Your task to perform on an android device: Go to Yahoo.com Image 0: 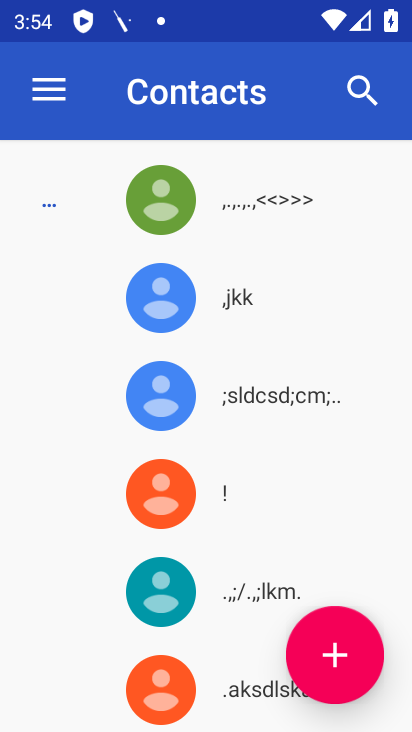
Step 0: press back button
Your task to perform on an android device: Go to Yahoo.com Image 1: 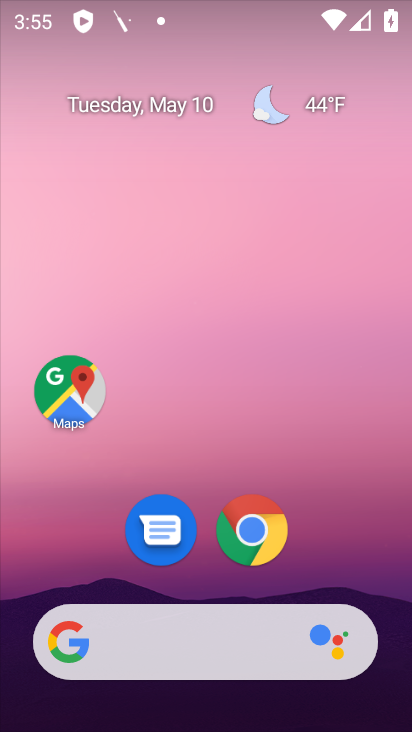
Step 1: click (262, 526)
Your task to perform on an android device: Go to Yahoo.com Image 2: 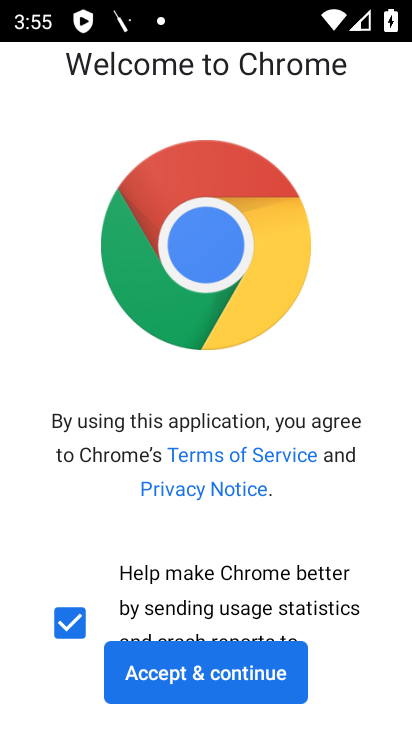
Step 2: click (253, 689)
Your task to perform on an android device: Go to Yahoo.com Image 3: 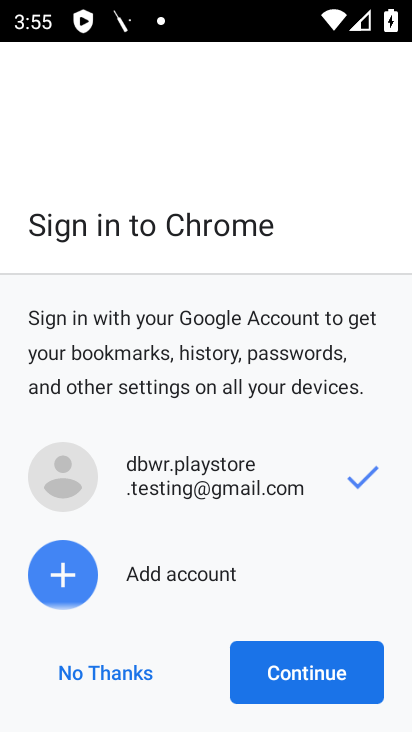
Step 3: click (336, 700)
Your task to perform on an android device: Go to Yahoo.com Image 4: 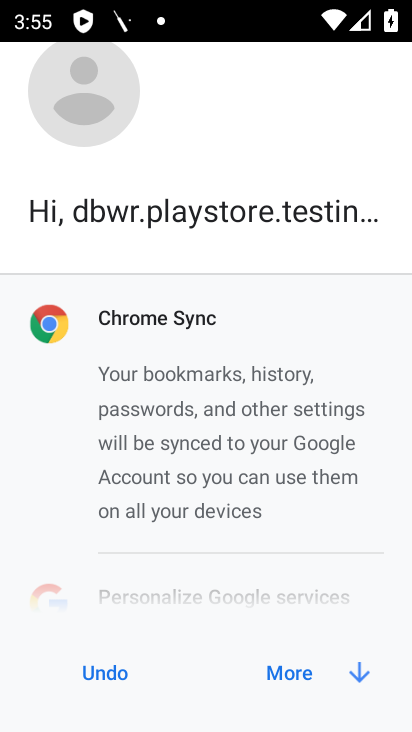
Step 4: click (331, 670)
Your task to perform on an android device: Go to Yahoo.com Image 5: 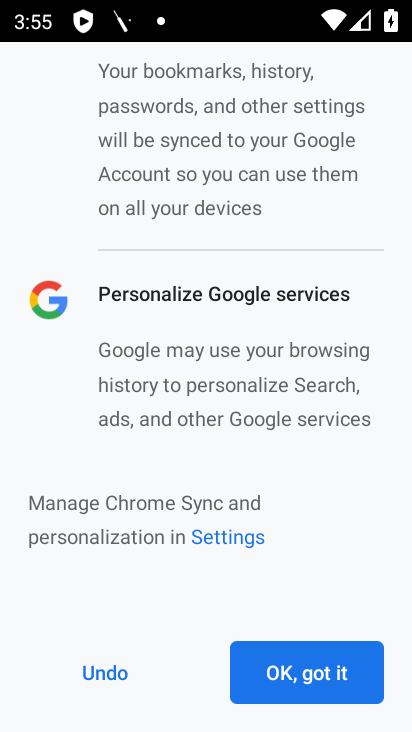
Step 5: click (328, 661)
Your task to perform on an android device: Go to Yahoo.com Image 6: 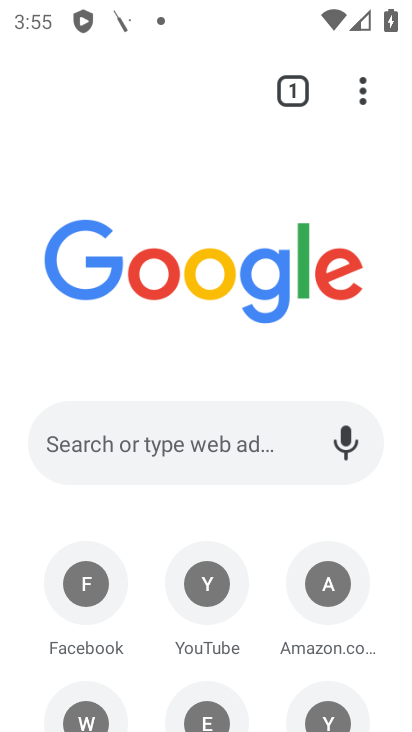
Step 6: drag from (199, 666) to (277, 252)
Your task to perform on an android device: Go to Yahoo.com Image 7: 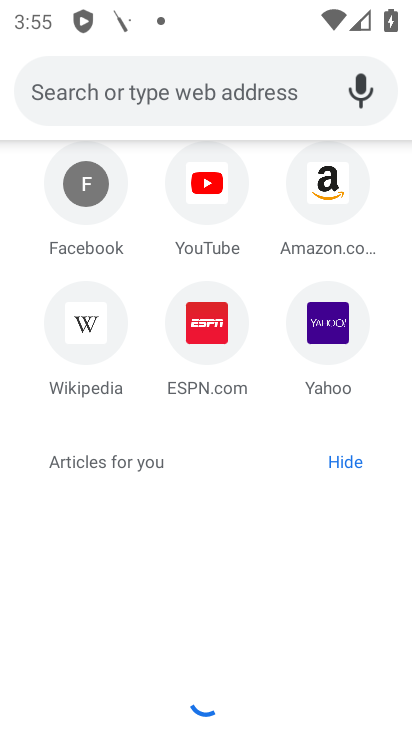
Step 7: click (320, 318)
Your task to perform on an android device: Go to Yahoo.com Image 8: 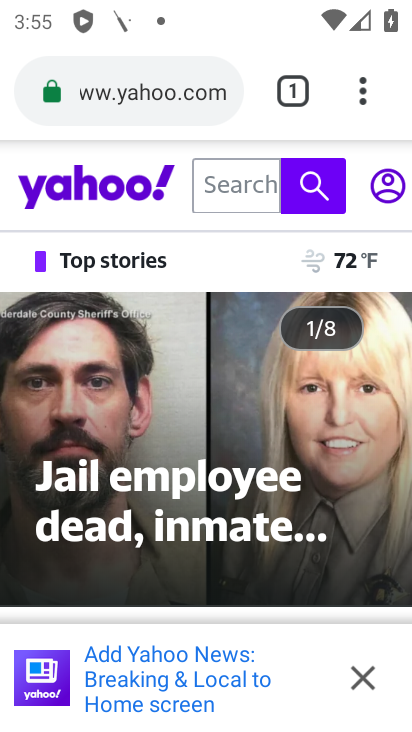
Step 8: task complete